Your task to perform on an android device: turn off wifi Image 0: 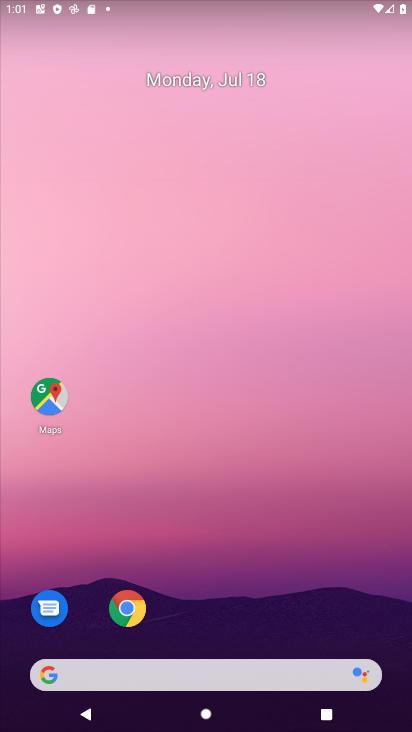
Step 0: drag from (379, 646) to (112, 123)
Your task to perform on an android device: turn off wifi Image 1: 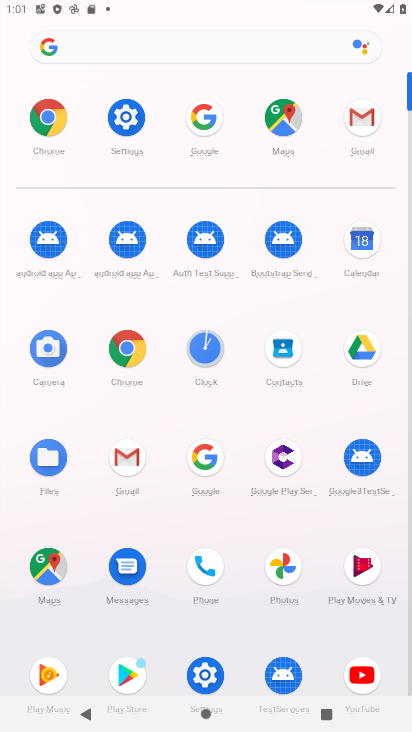
Step 1: drag from (189, 7) to (235, 465)
Your task to perform on an android device: turn off wifi Image 2: 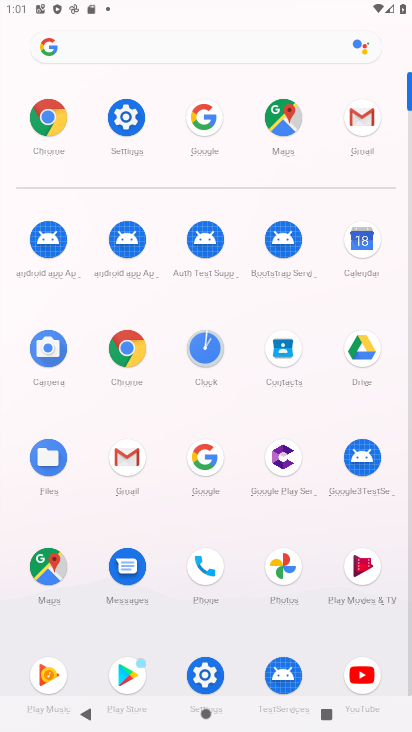
Step 2: drag from (213, 4) to (251, 607)
Your task to perform on an android device: turn off wifi Image 3: 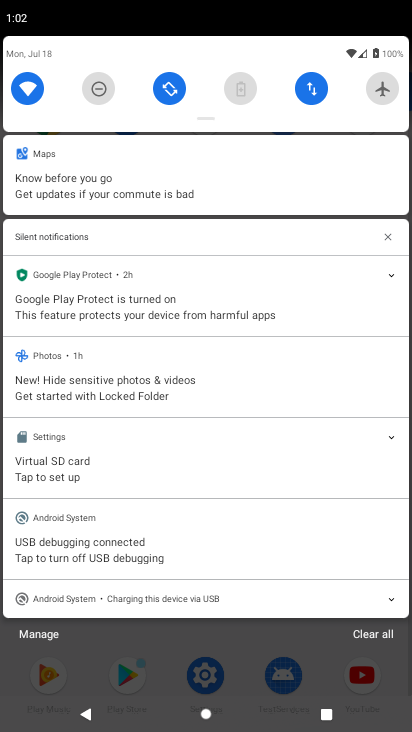
Step 3: click (35, 91)
Your task to perform on an android device: turn off wifi Image 4: 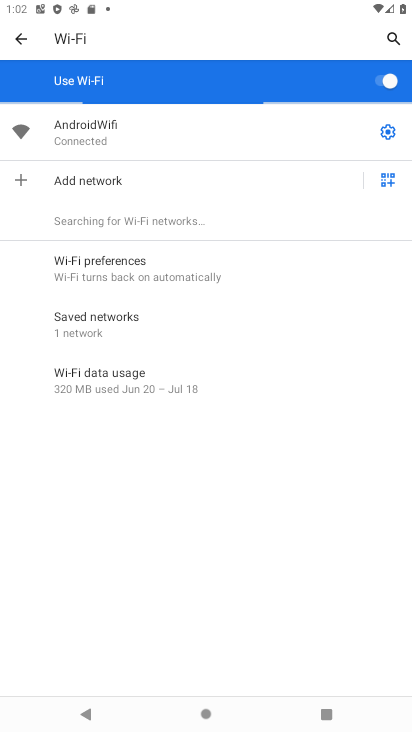
Step 4: click (384, 84)
Your task to perform on an android device: turn off wifi Image 5: 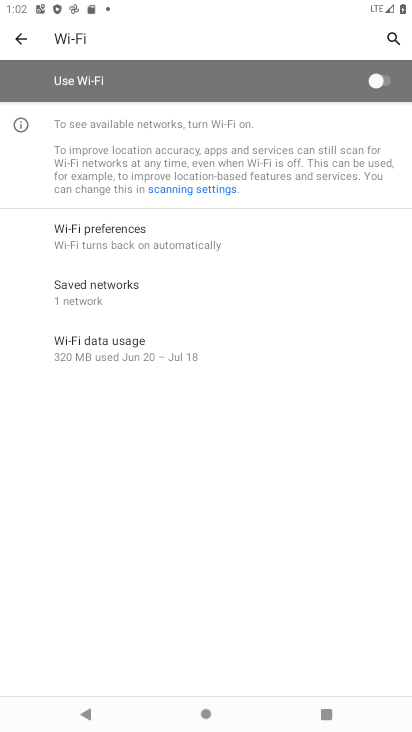
Step 5: task complete